Your task to perform on an android device: install app "AliExpress" Image 0: 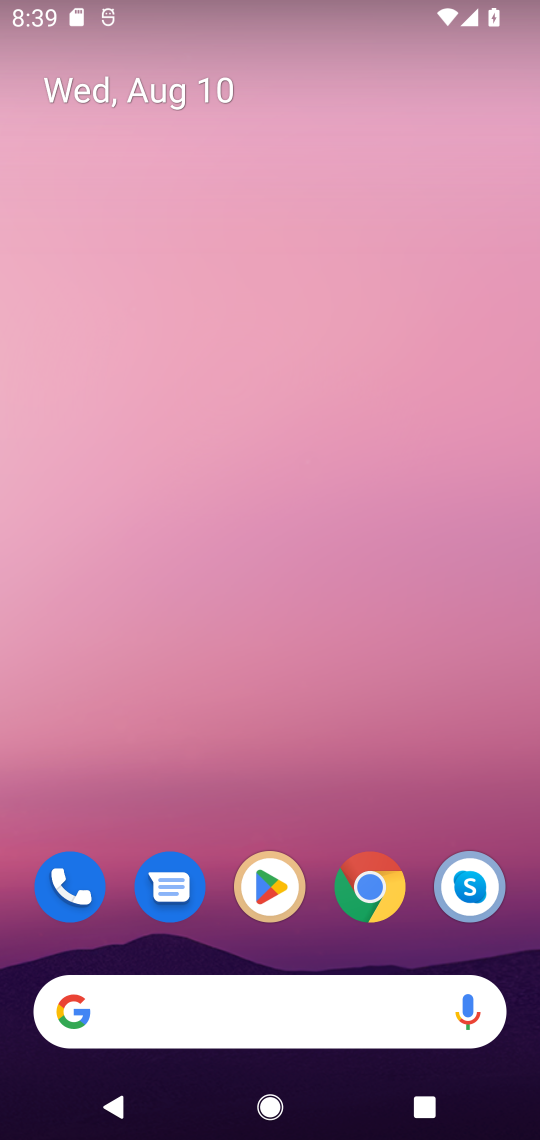
Step 0: drag from (329, 949) to (298, 26)
Your task to perform on an android device: install app "AliExpress" Image 1: 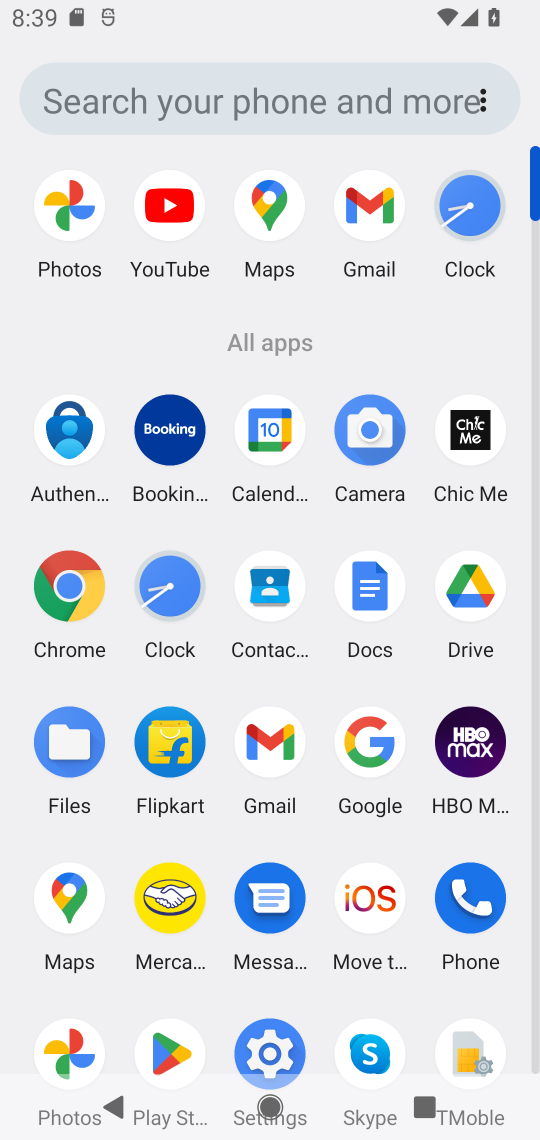
Step 1: click (386, 258)
Your task to perform on an android device: install app "AliExpress" Image 2: 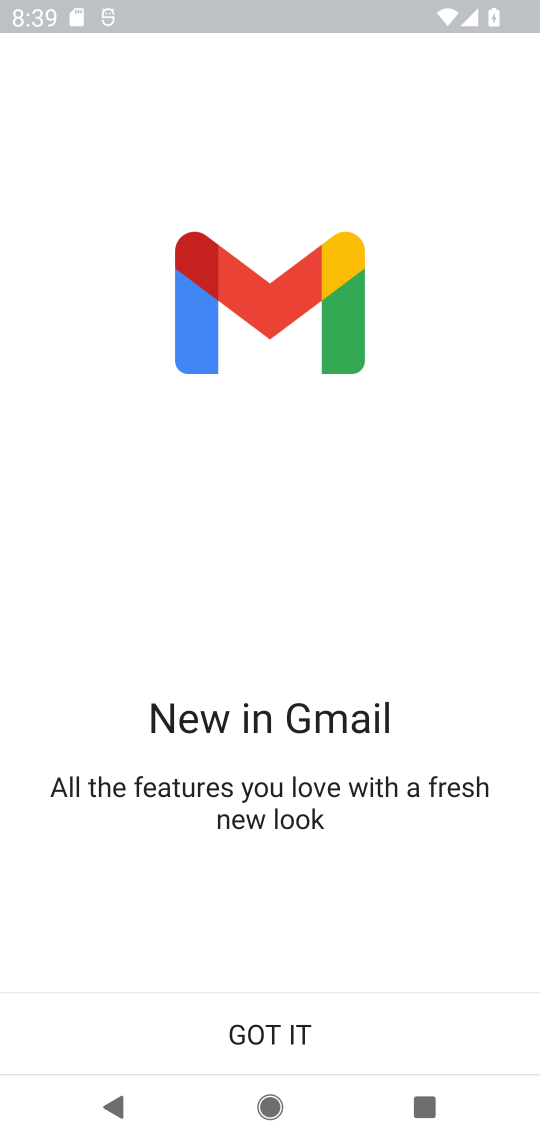
Step 2: press home button
Your task to perform on an android device: install app "AliExpress" Image 3: 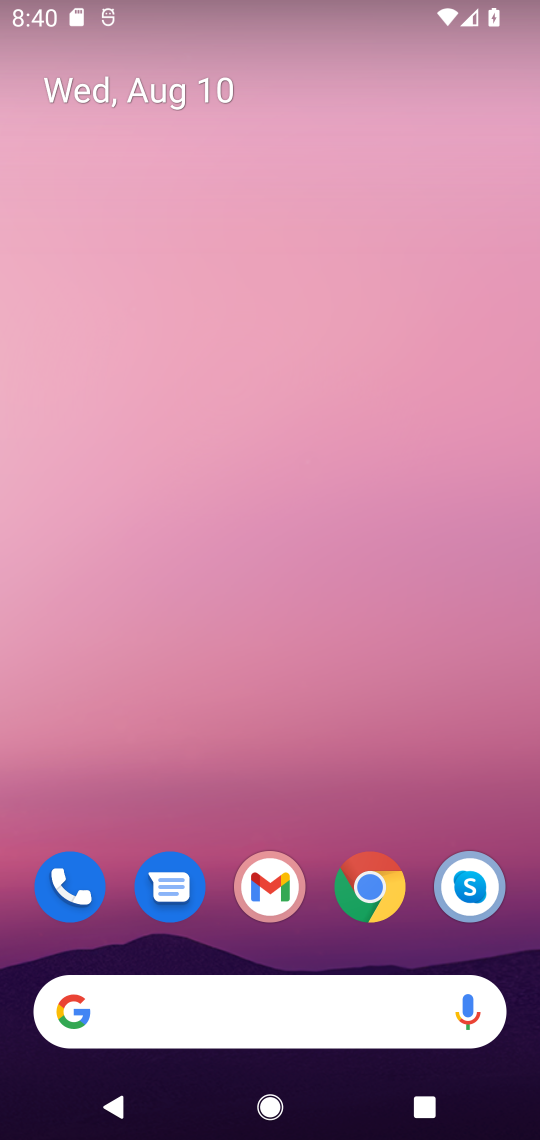
Step 3: drag from (311, 968) to (268, 138)
Your task to perform on an android device: install app "AliExpress" Image 4: 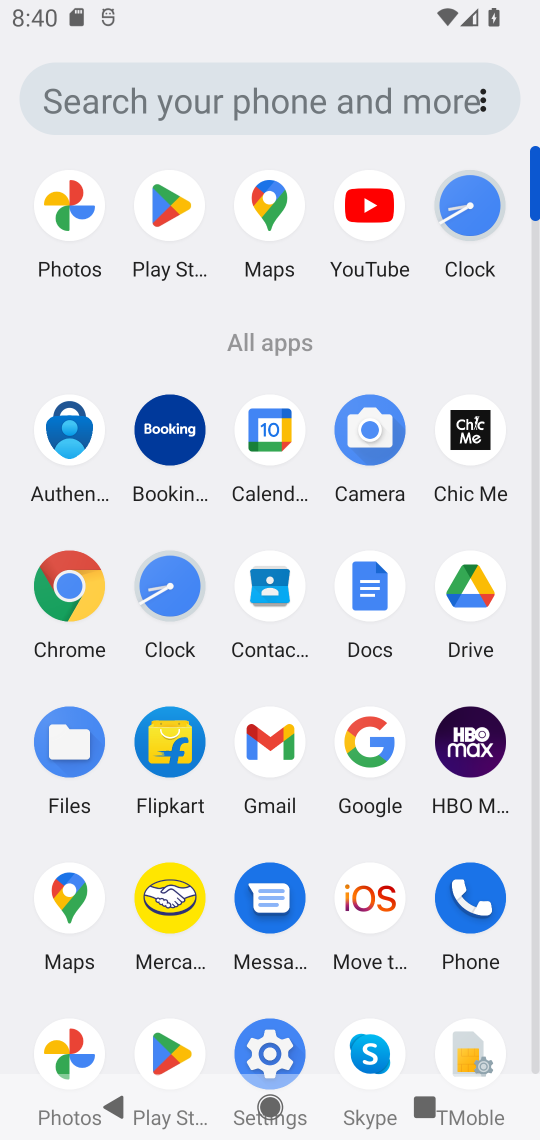
Step 4: click (198, 203)
Your task to perform on an android device: install app "AliExpress" Image 5: 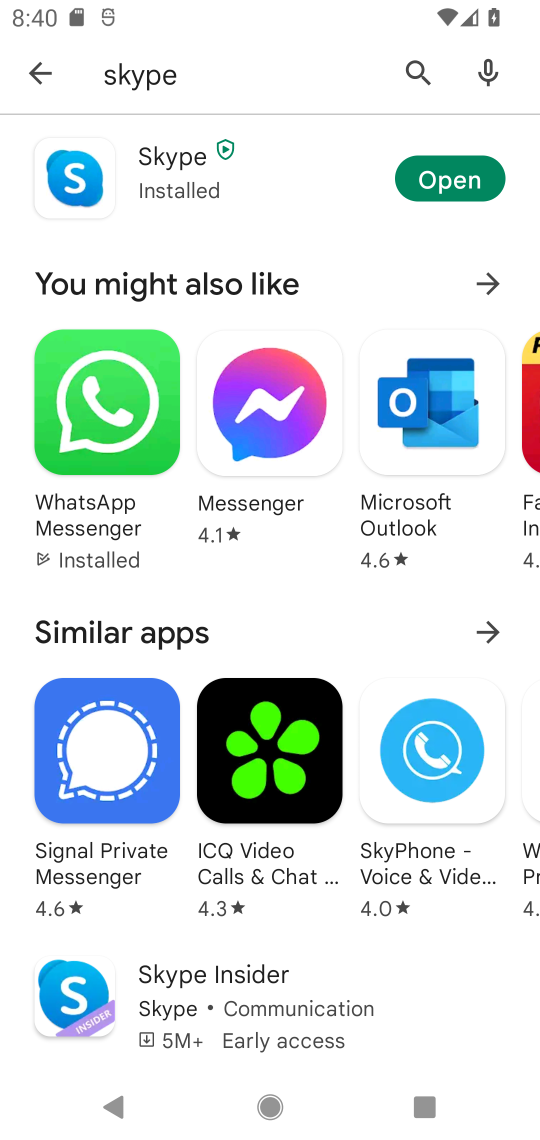
Step 5: click (431, 65)
Your task to perform on an android device: install app "AliExpress" Image 6: 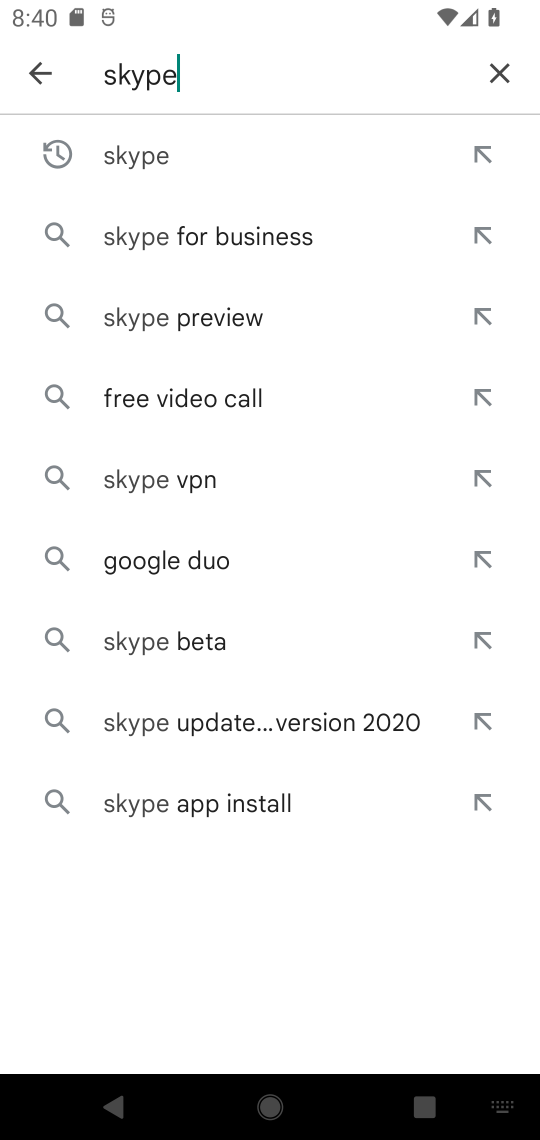
Step 6: click (502, 82)
Your task to perform on an android device: install app "AliExpress" Image 7: 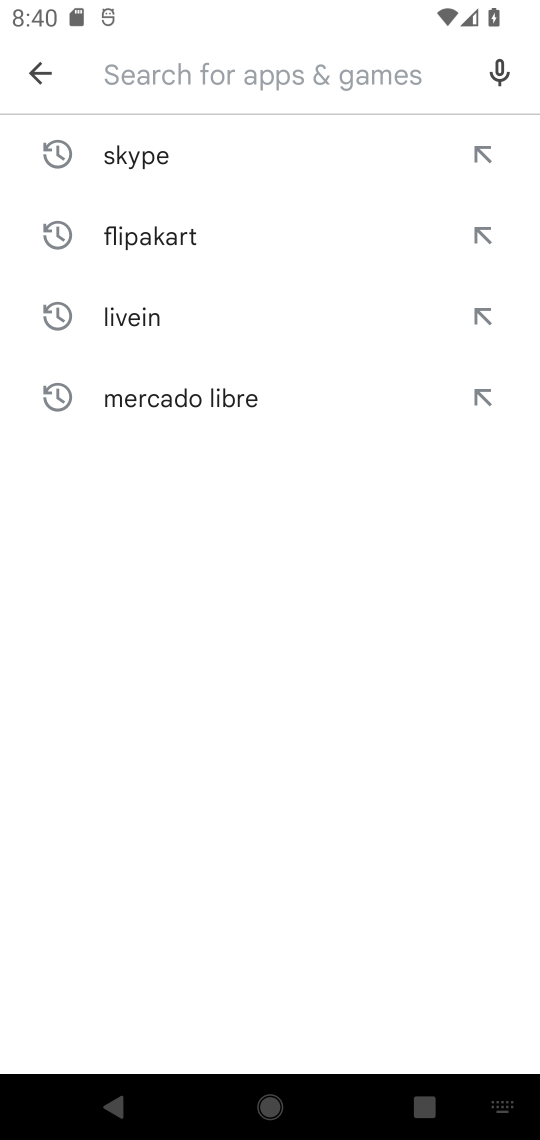
Step 7: type "install"
Your task to perform on an android device: install app "AliExpress" Image 8: 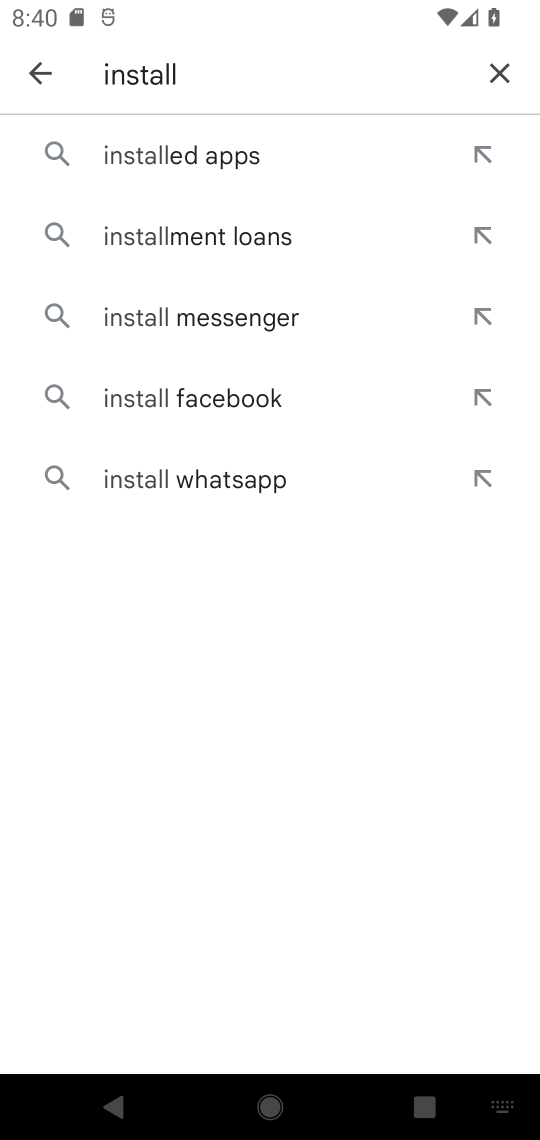
Step 8: click (494, 70)
Your task to perform on an android device: install app "AliExpress" Image 9: 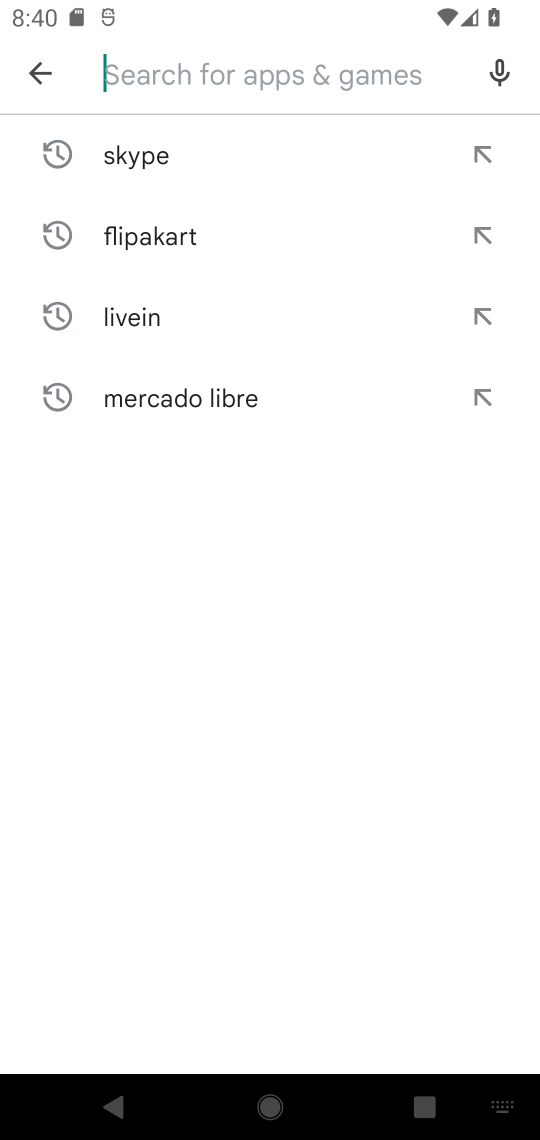
Step 9: type "aliexpress"
Your task to perform on an android device: install app "AliExpress" Image 10: 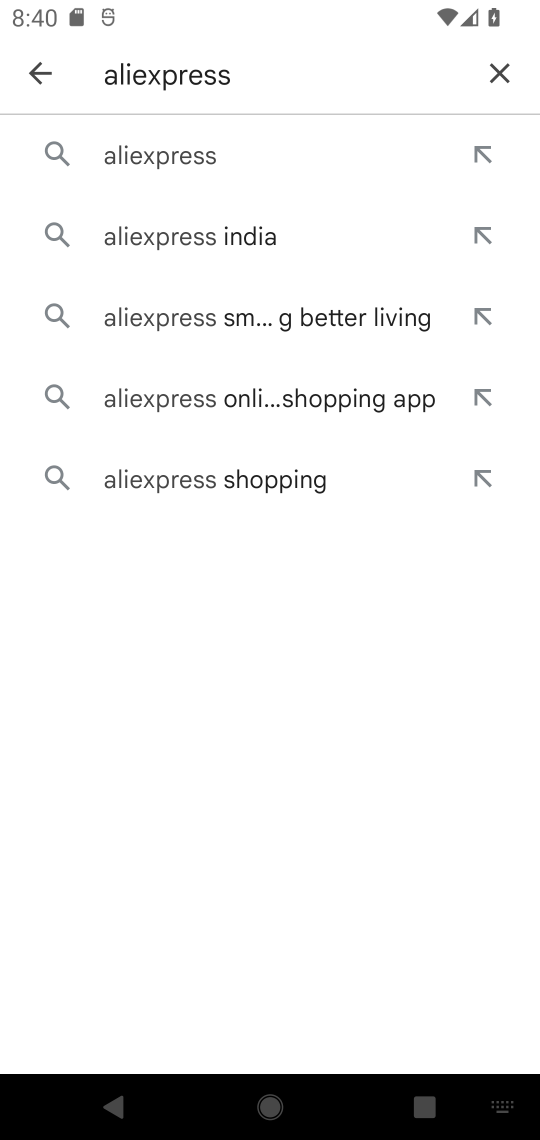
Step 10: click (114, 148)
Your task to perform on an android device: install app "AliExpress" Image 11: 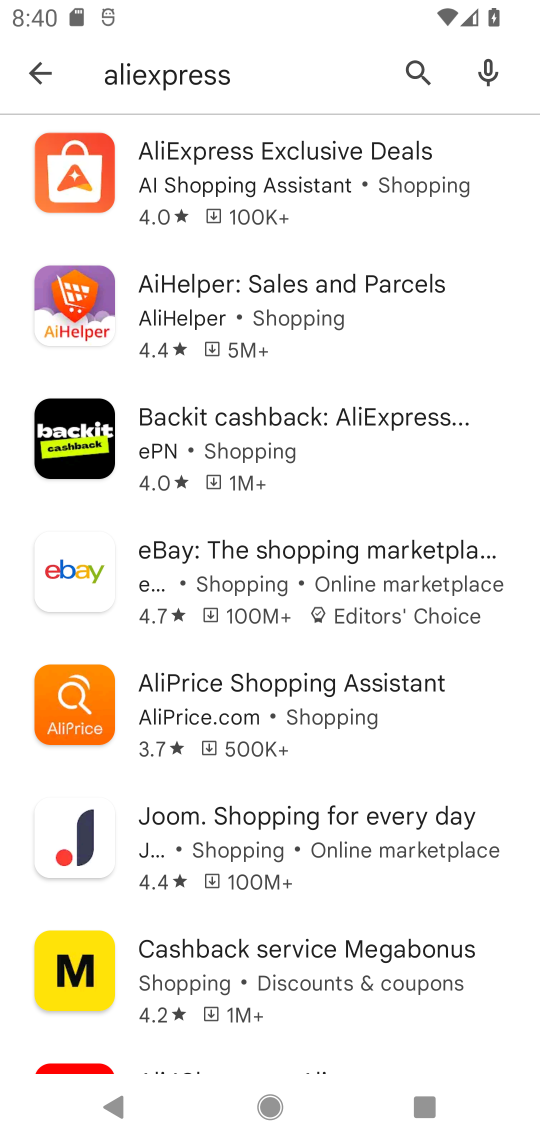
Step 11: click (361, 190)
Your task to perform on an android device: install app "AliExpress" Image 12: 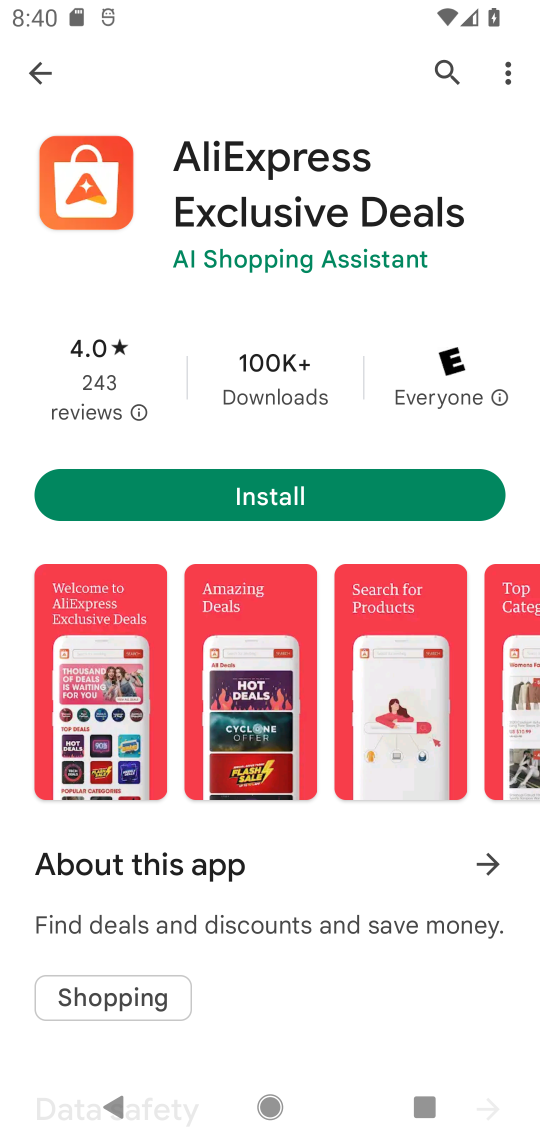
Step 12: click (255, 475)
Your task to perform on an android device: install app "AliExpress" Image 13: 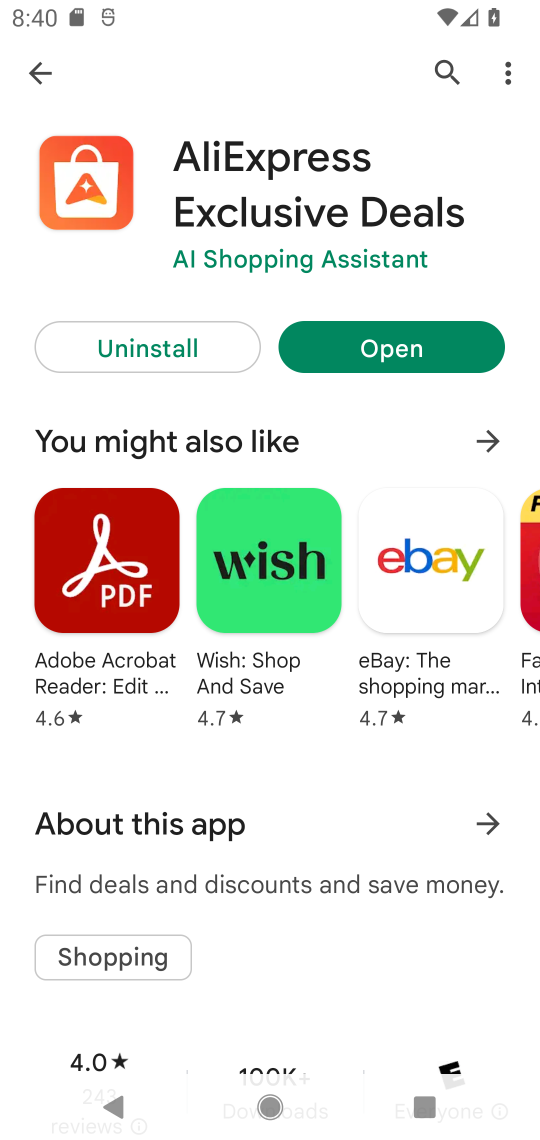
Step 13: click (439, 344)
Your task to perform on an android device: install app "AliExpress" Image 14: 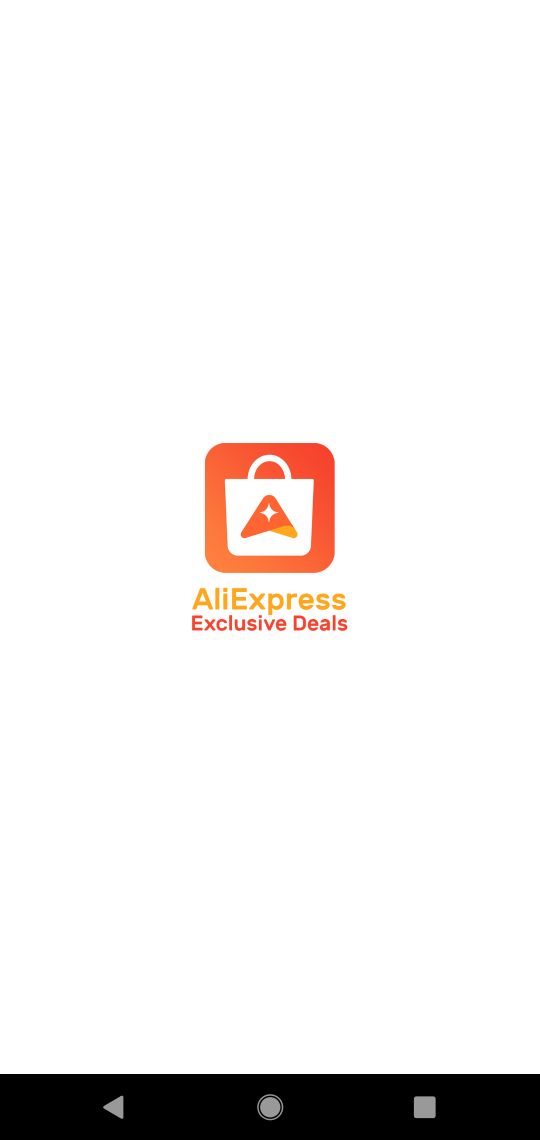
Step 14: task complete